Your task to perform on an android device: open app "Venmo" (install if not already installed) Image 0: 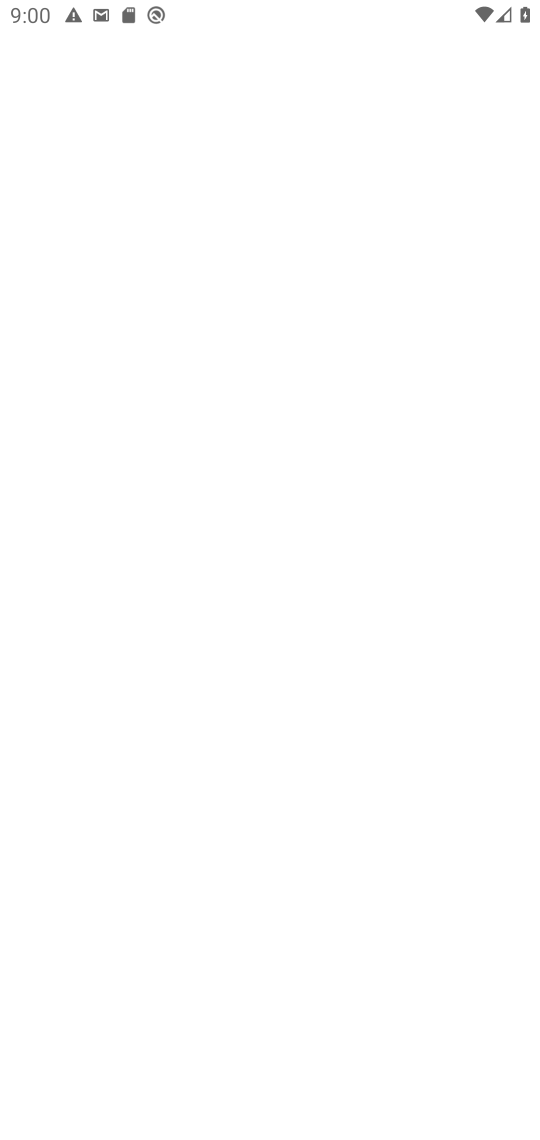
Step 0: press home button
Your task to perform on an android device: open app "Venmo" (install if not already installed) Image 1: 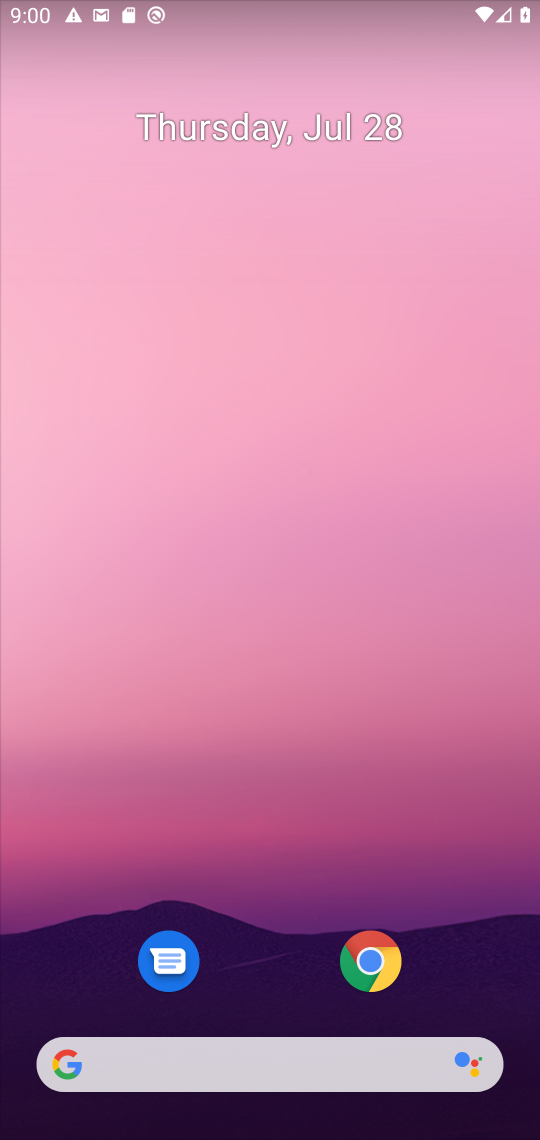
Step 1: drag from (267, 981) to (249, 214)
Your task to perform on an android device: open app "Venmo" (install if not already installed) Image 2: 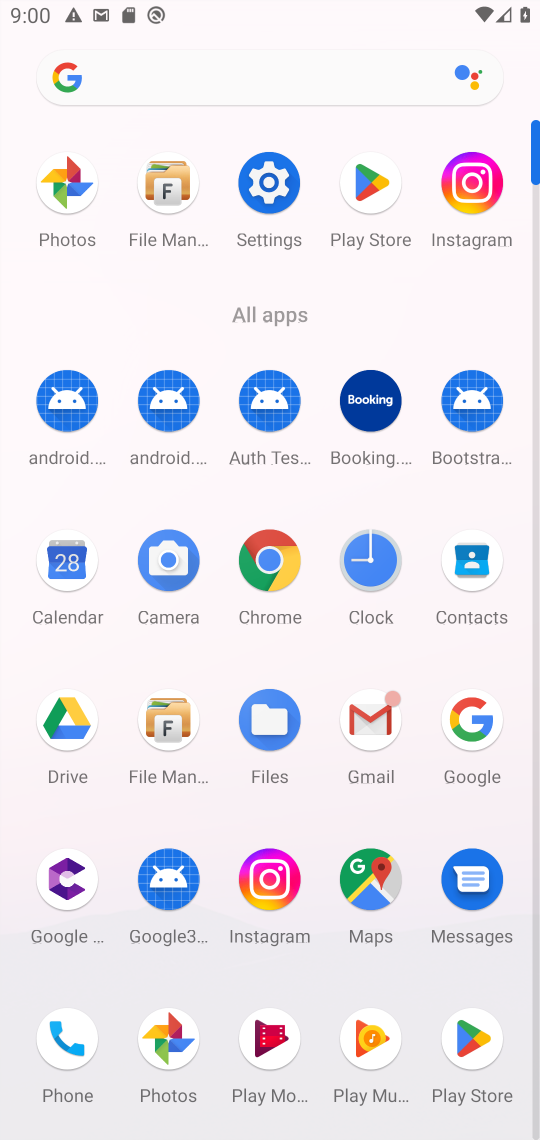
Step 2: click (357, 178)
Your task to perform on an android device: open app "Venmo" (install if not already installed) Image 3: 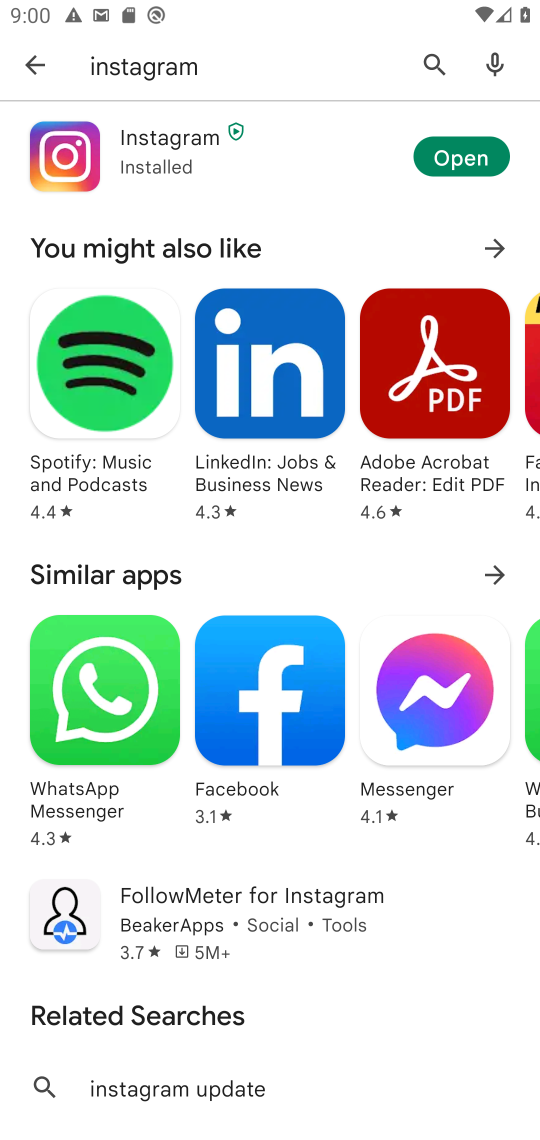
Step 3: click (424, 59)
Your task to perform on an android device: open app "Venmo" (install if not already installed) Image 4: 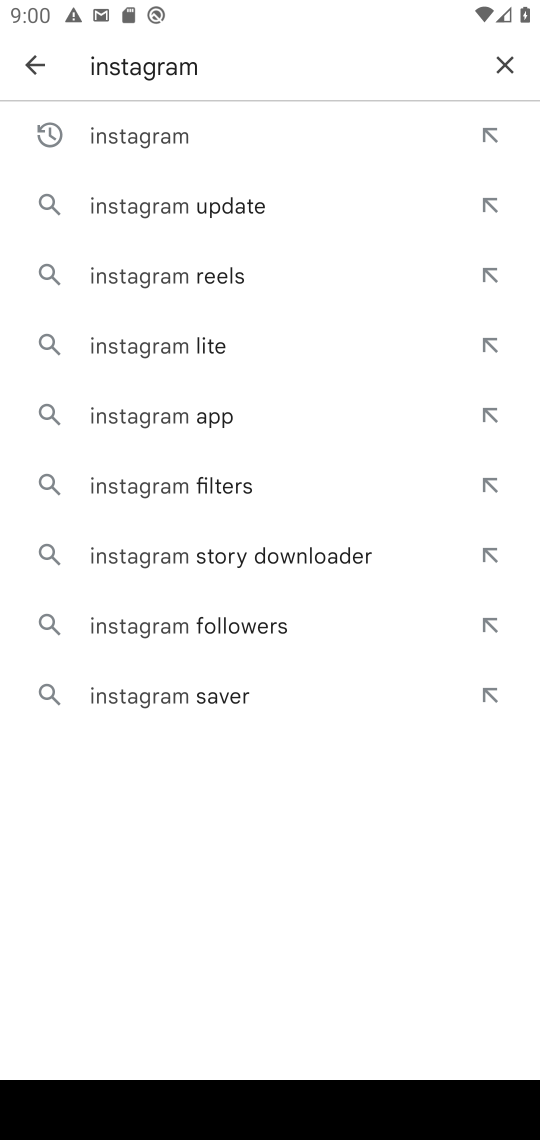
Step 4: click (424, 59)
Your task to perform on an android device: open app "Venmo" (install if not already installed) Image 5: 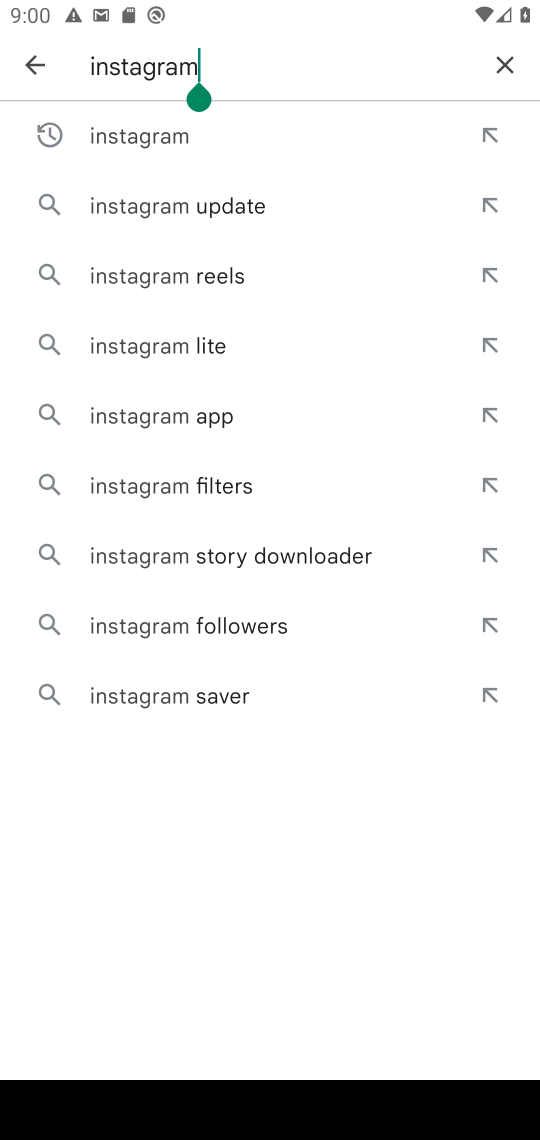
Step 5: click (503, 70)
Your task to perform on an android device: open app "Venmo" (install if not already installed) Image 6: 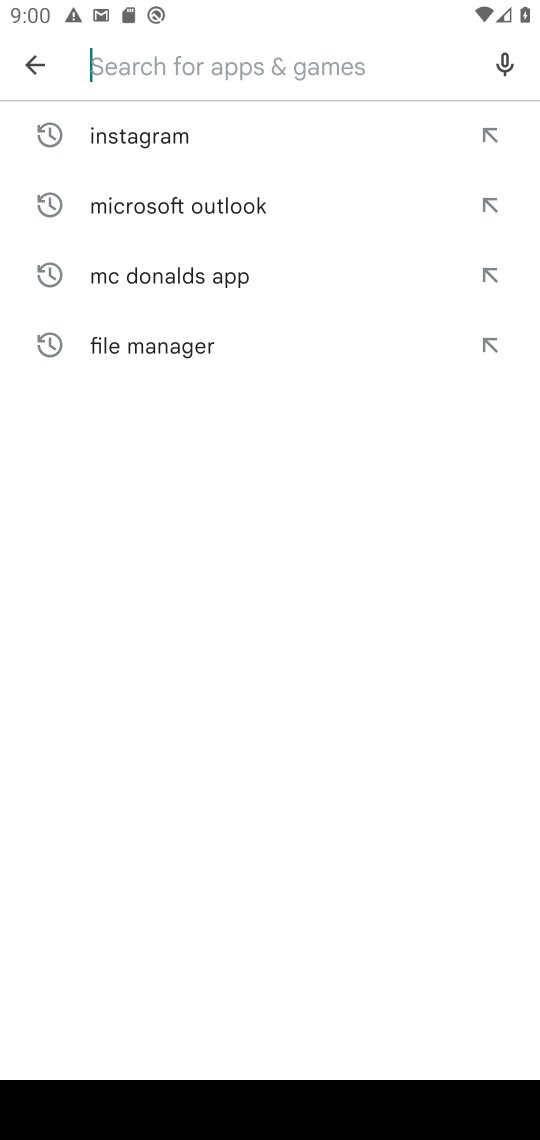
Step 6: type "venmo"
Your task to perform on an android device: open app "Venmo" (install if not already installed) Image 7: 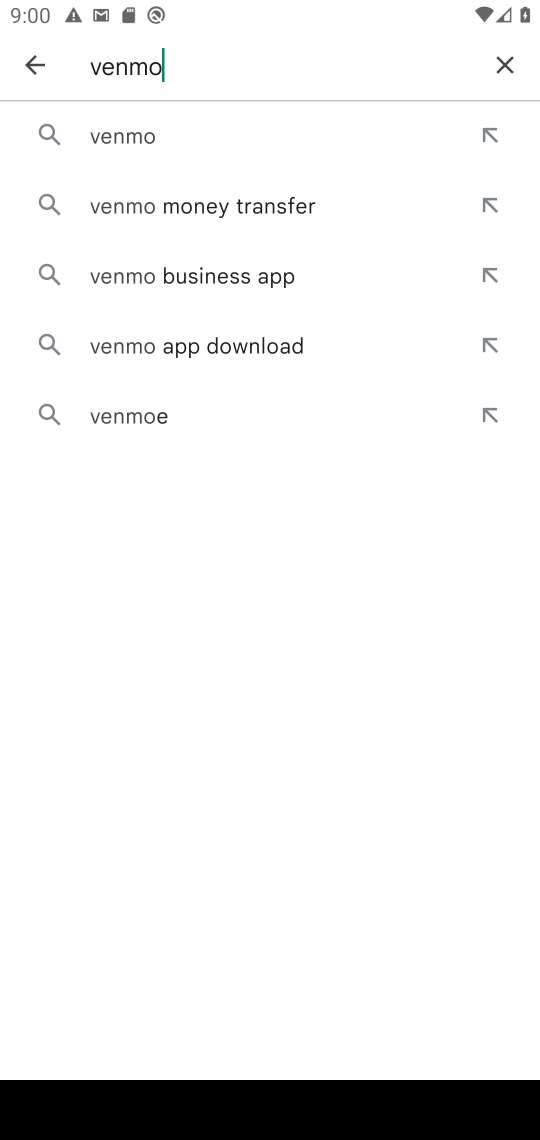
Step 7: click (178, 128)
Your task to perform on an android device: open app "Venmo" (install if not already installed) Image 8: 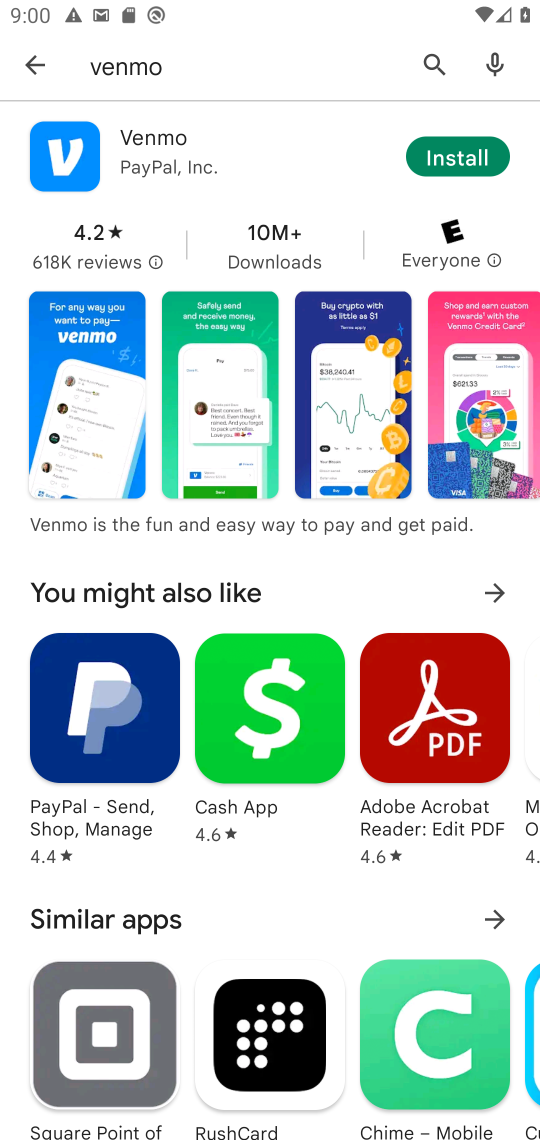
Step 8: click (446, 156)
Your task to perform on an android device: open app "Venmo" (install if not already installed) Image 9: 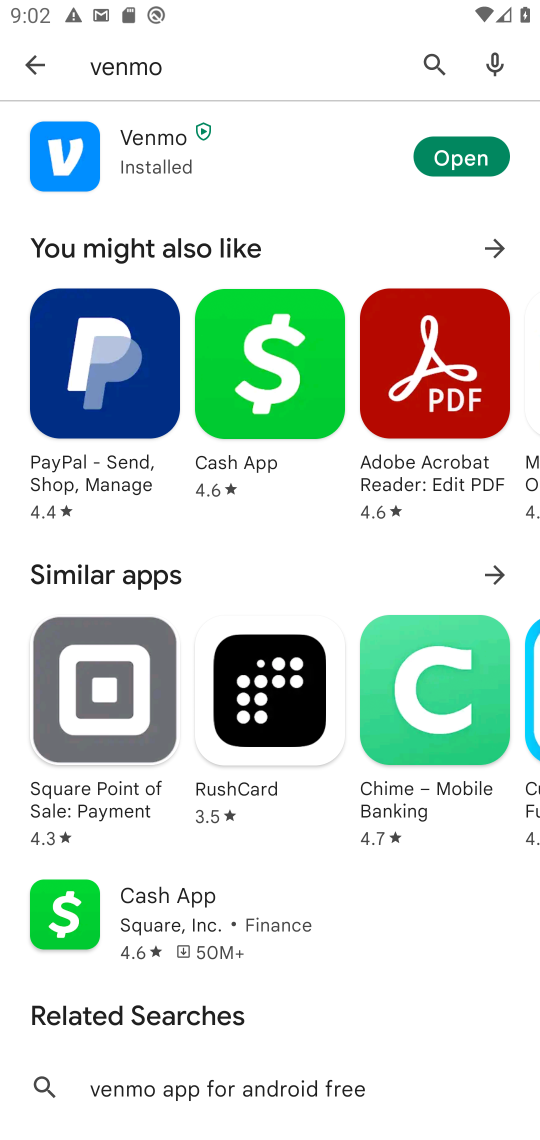
Step 9: click (436, 168)
Your task to perform on an android device: open app "Venmo" (install if not already installed) Image 10: 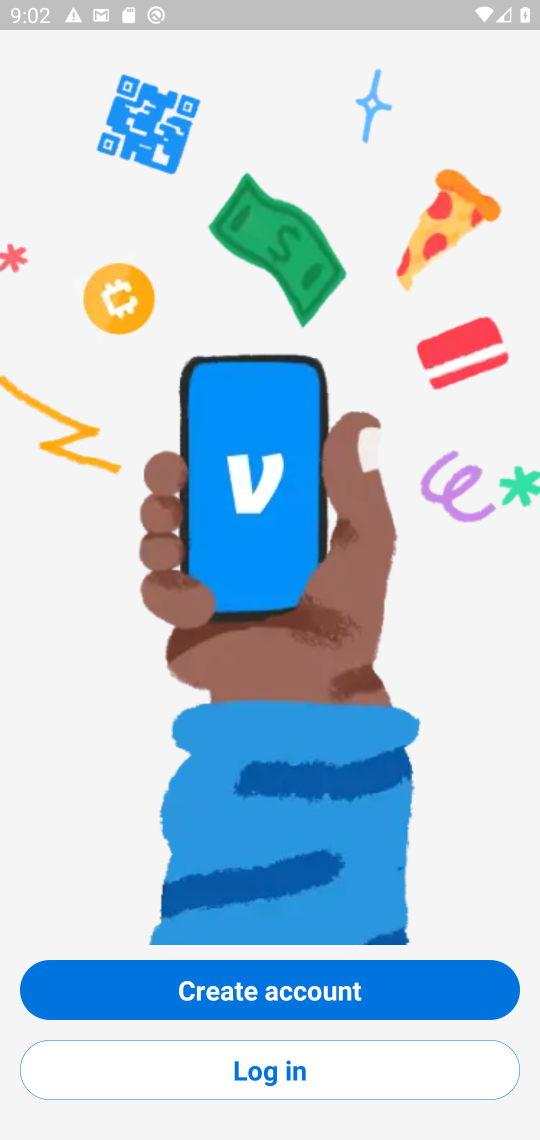
Step 10: task complete